Your task to perform on an android device: turn vacation reply on in the gmail app Image 0: 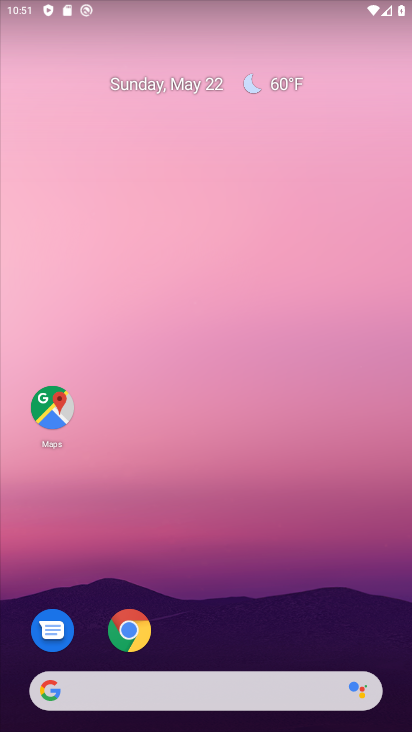
Step 0: drag from (262, 604) to (267, 216)
Your task to perform on an android device: turn vacation reply on in the gmail app Image 1: 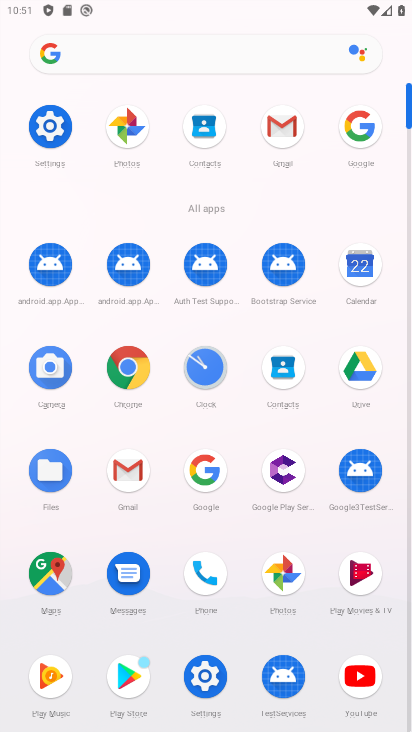
Step 1: click (284, 122)
Your task to perform on an android device: turn vacation reply on in the gmail app Image 2: 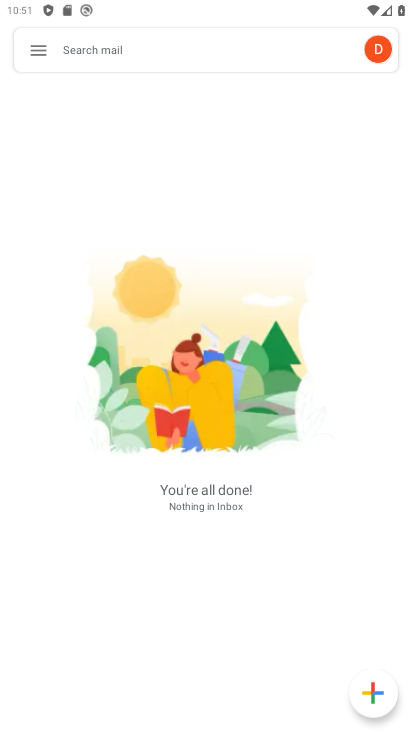
Step 2: click (38, 51)
Your task to perform on an android device: turn vacation reply on in the gmail app Image 3: 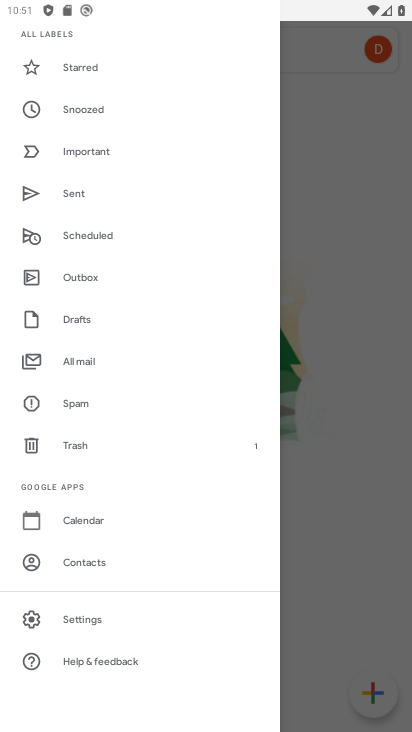
Step 3: click (87, 622)
Your task to perform on an android device: turn vacation reply on in the gmail app Image 4: 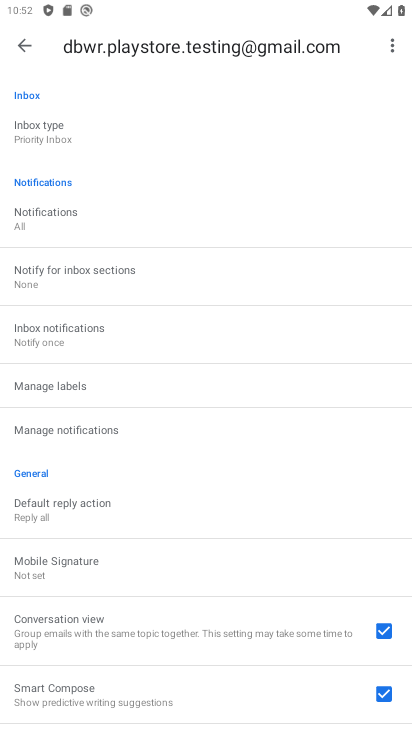
Step 4: drag from (150, 605) to (188, 527)
Your task to perform on an android device: turn vacation reply on in the gmail app Image 5: 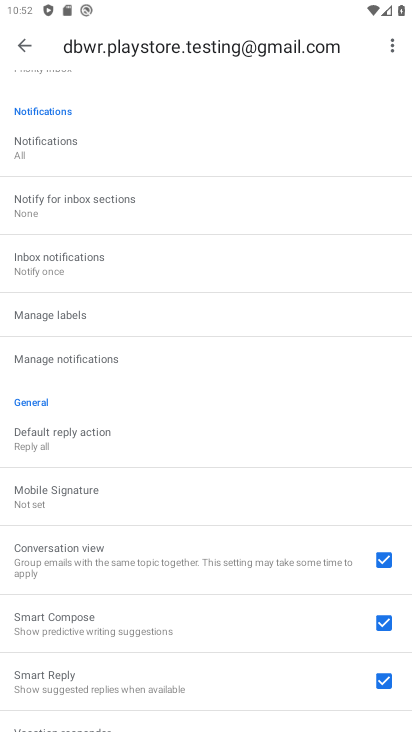
Step 5: drag from (111, 666) to (208, 530)
Your task to perform on an android device: turn vacation reply on in the gmail app Image 6: 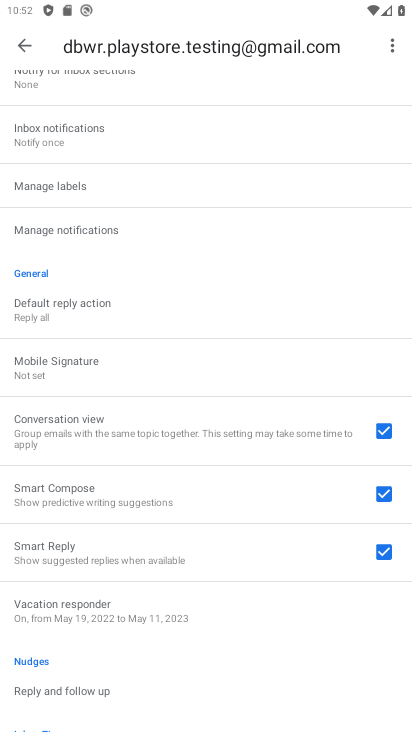
Step 6: click (106, 617)
Your task to perform on an android device: turn vacation reply on in the gmail app Image 7: 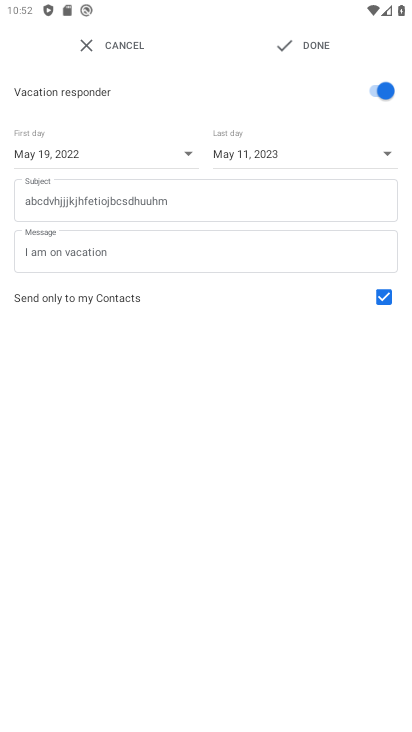
Step 7: task complete